Your task to perform on an android device: see sites visited before in the chrome app Image 0: 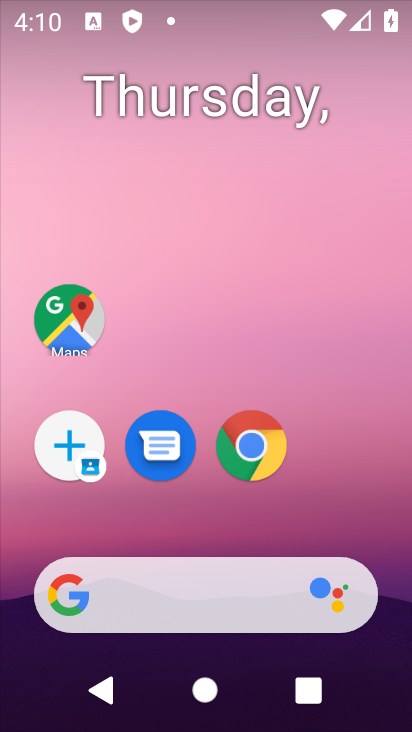
Step 0: click (350, 467)
Your task to perform on an android device: see sites visited before in the chrome app Image 1: 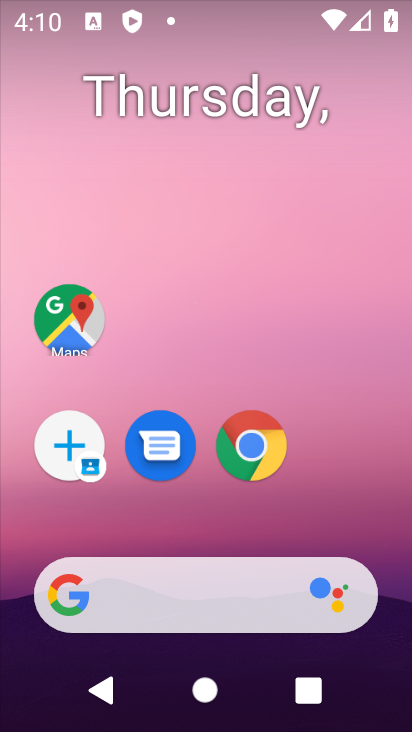
Step 1: click (271, 468)
Your task to perform on an android device: see sites visited before in the chrome app Image 2: 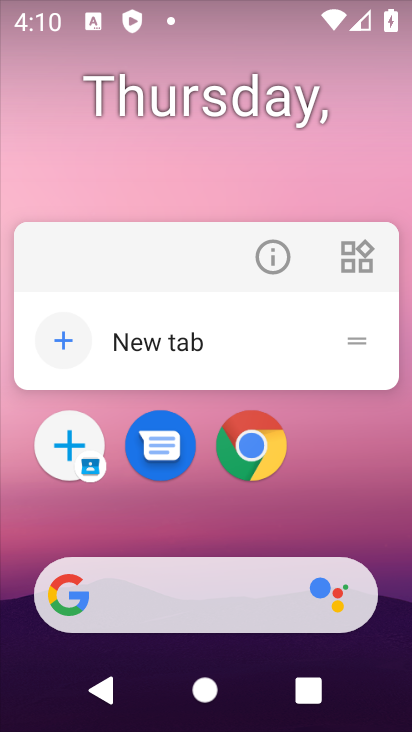
Step 2: click (269, 461)
Your task to perform on an android device: see sites visited before in the chrome app Image 3: 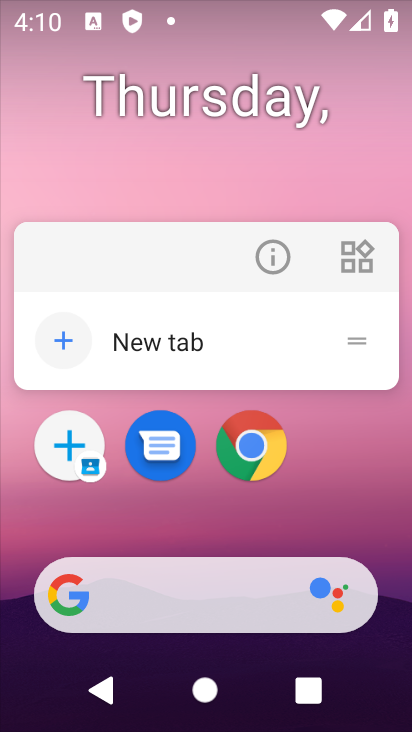
Step 3: click (269, 461)
Your task to perform on an android device: see sites visited before in the chrome app Image 4: 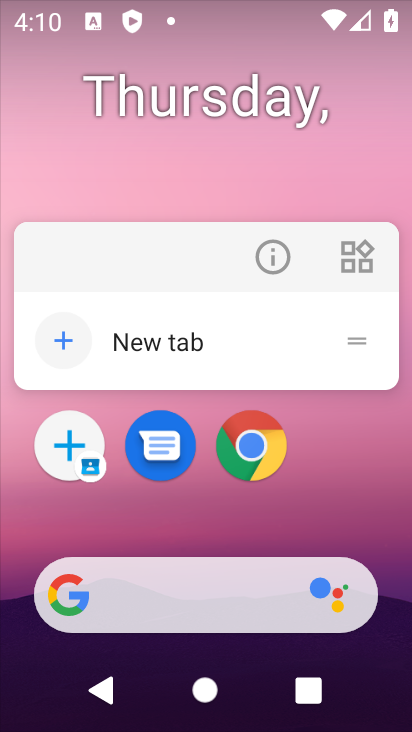
Step 4: click (248, 445)
Your task to perform on an android device: see sites visited before in the chrome app Image 5: 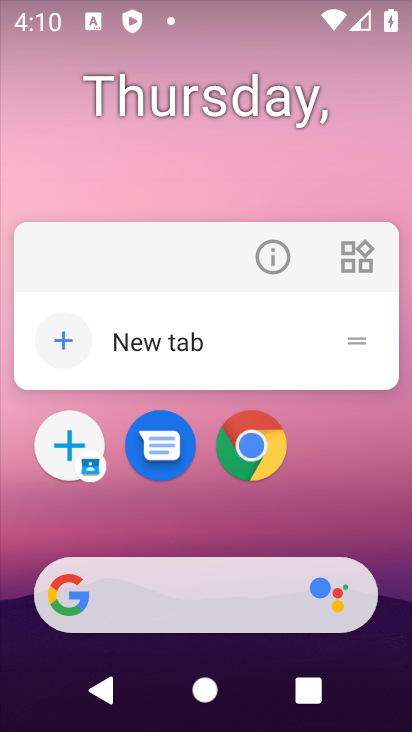
Step 5: click (242, 428)
Your task to perform on an android device: see sites visited before in the chrome app Image 6: 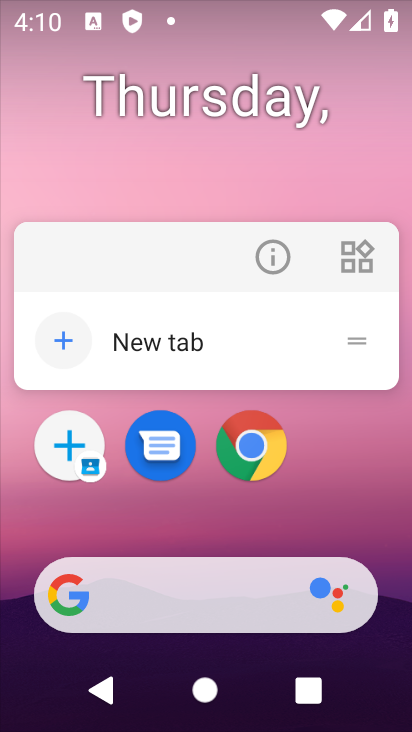
Step 6: click (242, 427)
Your task to perform on an android device: see sites visited before in the chrome app Image 7: 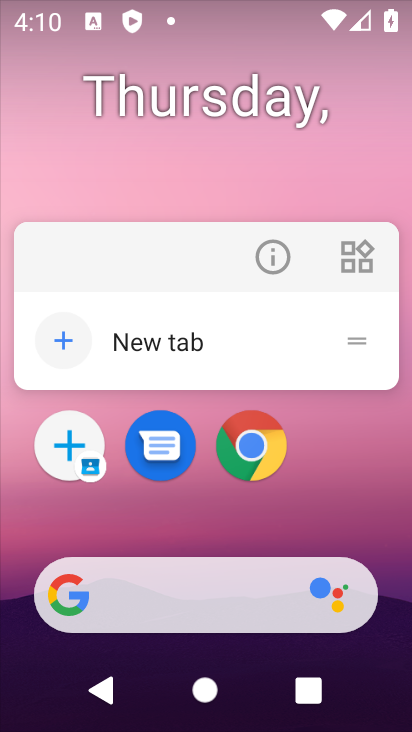
Step 7: click (252, 450)
Your task to perform on an android device: see sites visited before in the chrome app Image 8: 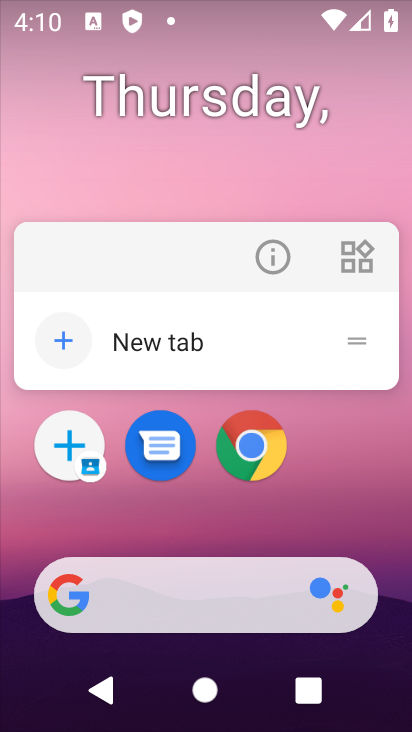
Step 8: click (252, 450)
Your task to perform on an android device: see sites visited before in the chrome app Image 9: 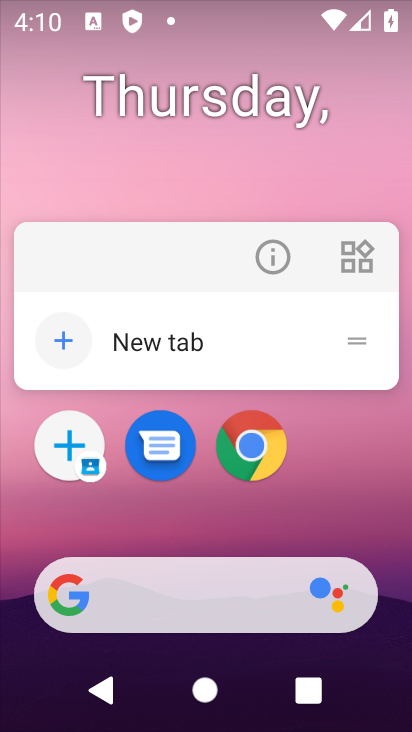
Step 9: click (255, 442)
Your task to perform on an android device: see sites visited before in the chrome app Image 10: 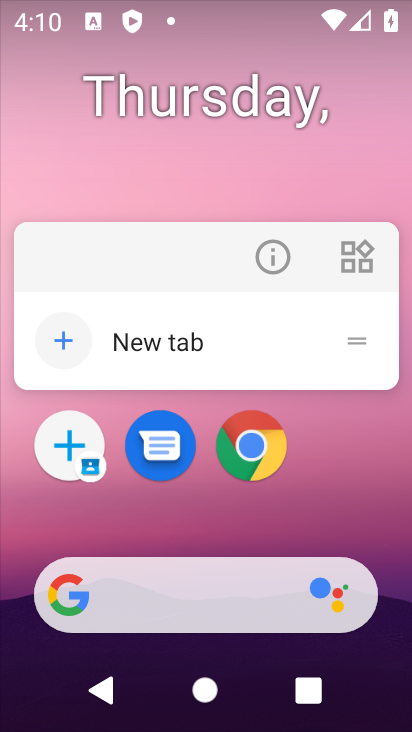
Step 10: click (262, 446)
Your task to perform on an android device: see sites visited before in the chrome app Image 11: 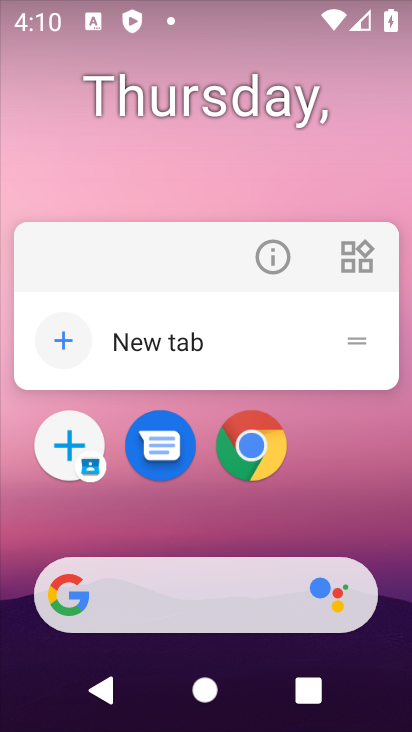
Step 11: click (262, 445)
Your task to perform on an android device: see sites visited before in the chrome app Image 12: 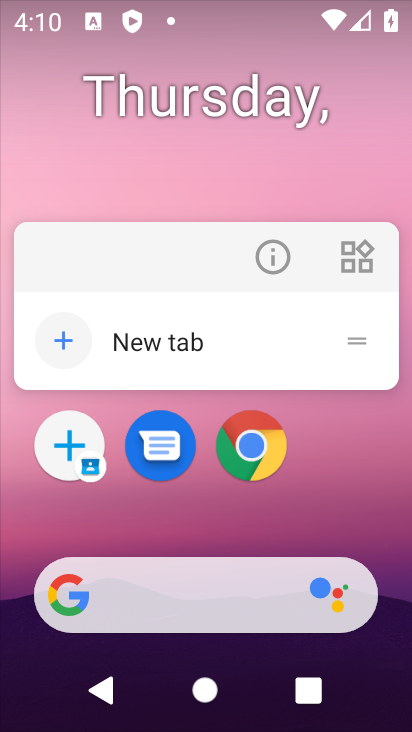
Step 12: click (262, 446)
Your task to perform on an android device: see sites visited before in the chrome app Image 13: 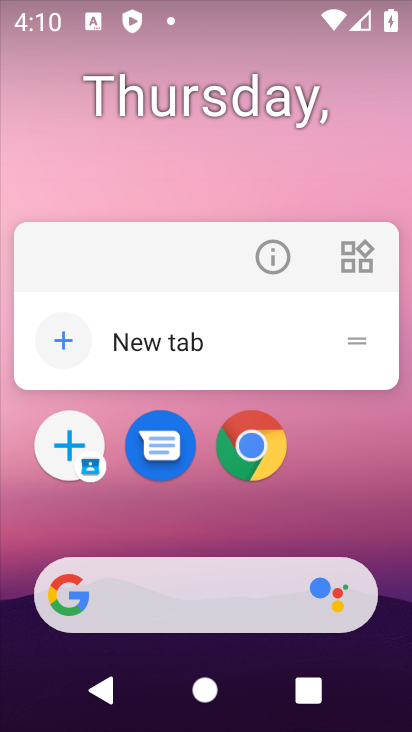
Step 13: click (262, 444)
Your task to perform on an android device: see sites visited before in the chrome app Image 14: 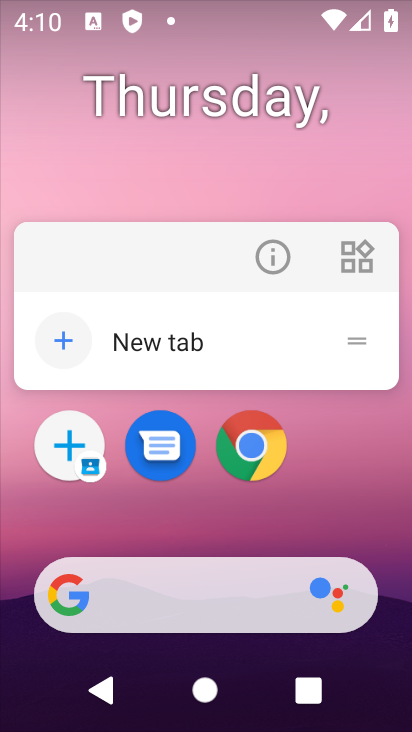
Step 14: click (262, 444)
Your task to perform on an android device: see sites visited before in the chrome app Image 15: 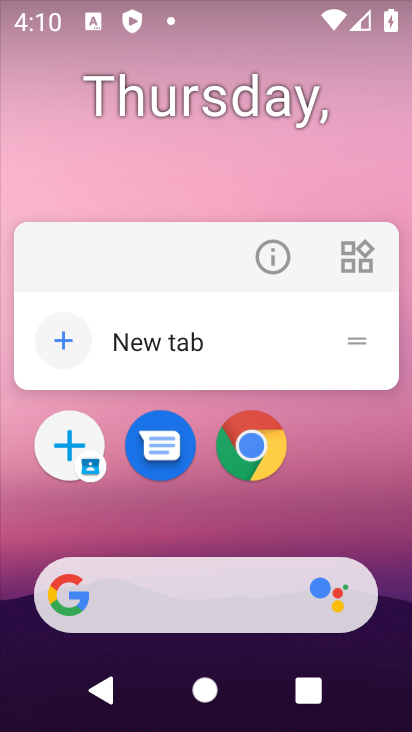
Step 15: click (262, 443)
Your task to perform on an android device: see sites visited before in the chrome app Image 16: 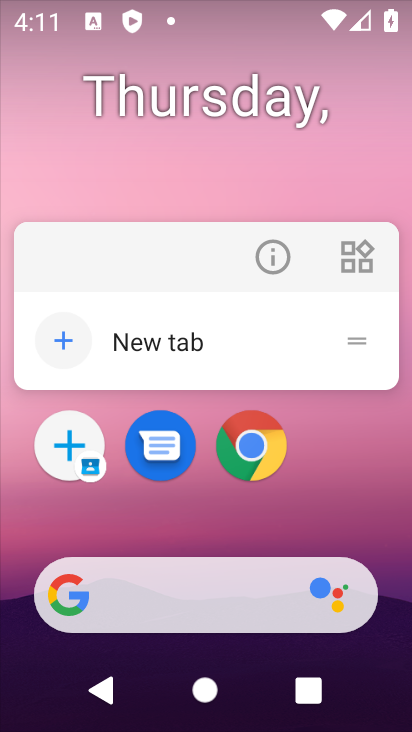
Step 16: click (262, 442)
Your task to perform on an android device: see sites visited before in the chrome app Image 17: 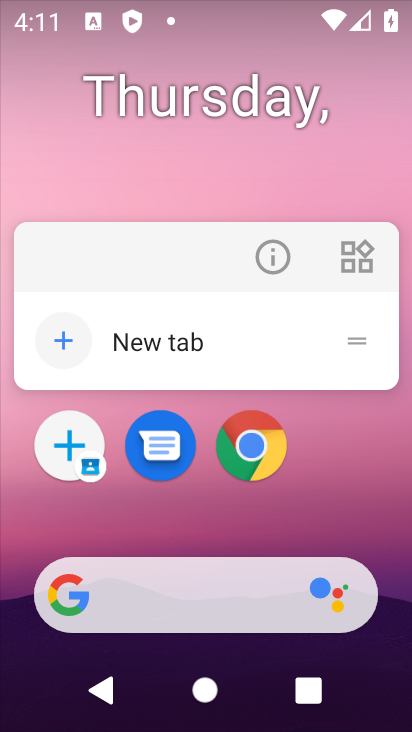
Step 17: click (247, 459)
Your task to perform on an android device: see sites visited before in the chrome app Image 18: 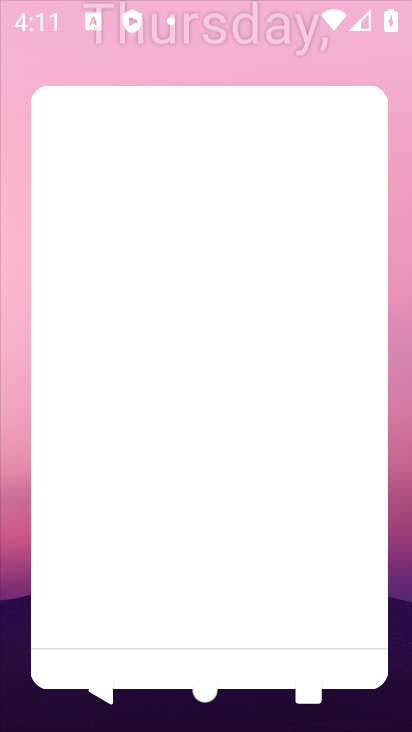
Step 18: click (247, 453)
Your task to perform on an android device: see sites visited before in the chrome app Image 19: 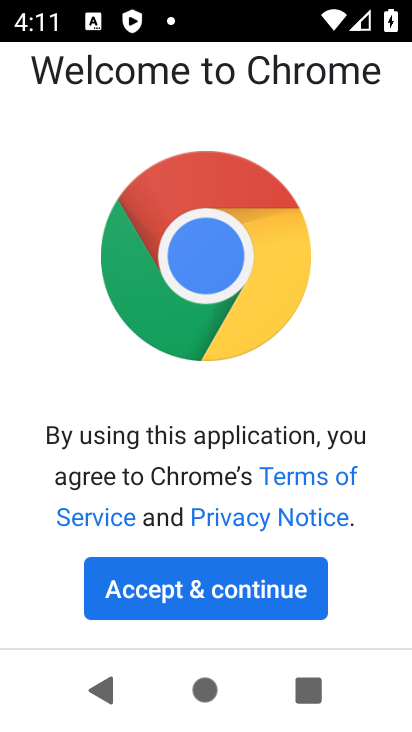
Step 19: click (214, 592)
Your task to perform on an android device: see sites visited before in the chrome app Image 20: 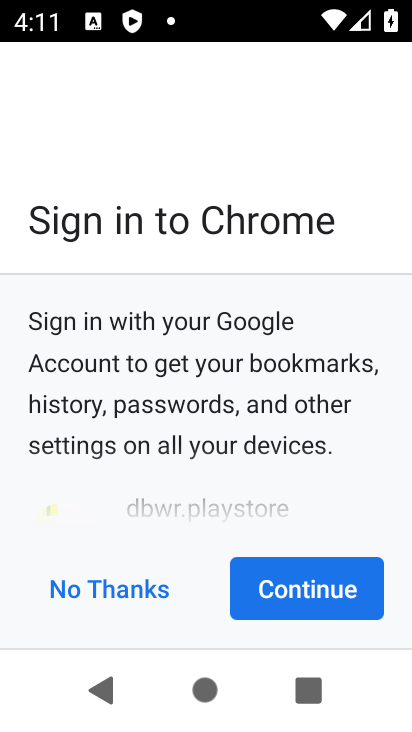
Step 20: click (89, 586)
Your task to perform on an android device: see sites visited before in the chrome app Image 21: 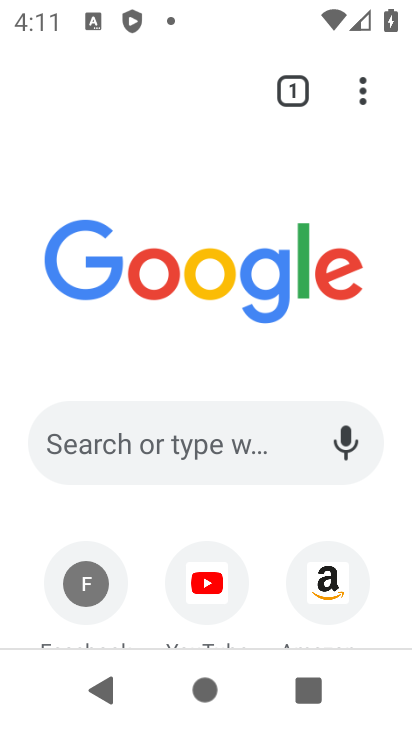
Step 21: task complete